Your task to perform on an android device: install app "Google Drive" Image 0: 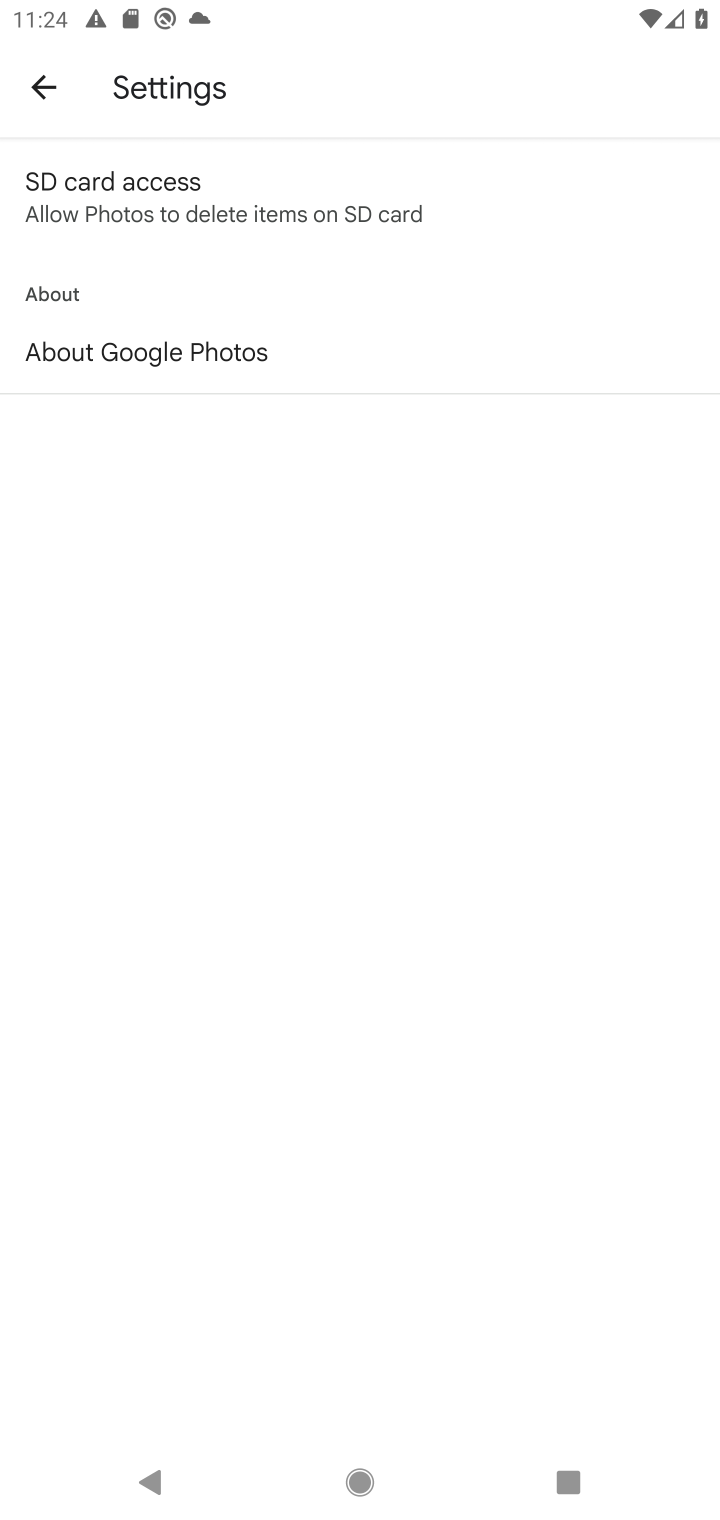
Step 0: press home button
Your task to perform on an android device: install app "Google Drive" Image 1: 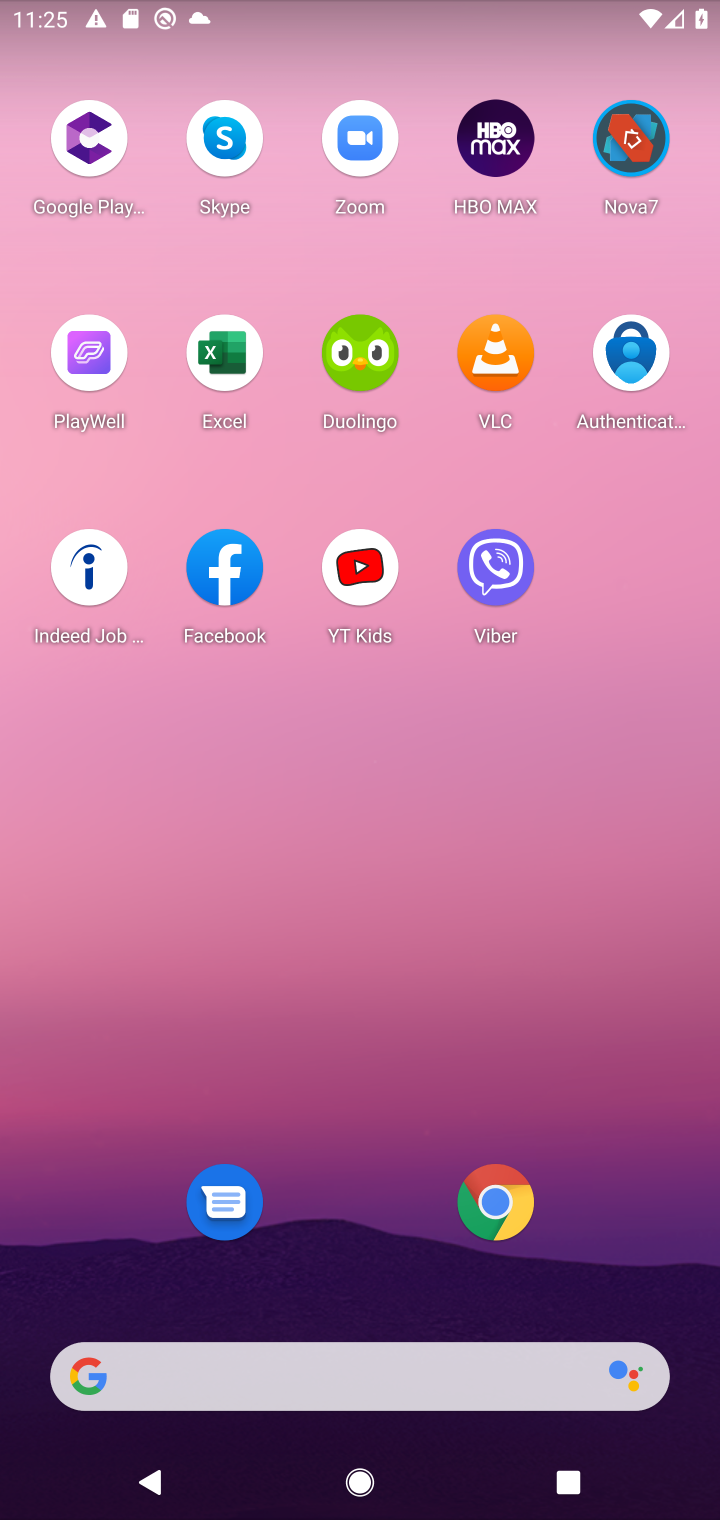
Step 1: click (233, 1375)
Your task to perform on an android device: install app "Google Drive" Image 2: 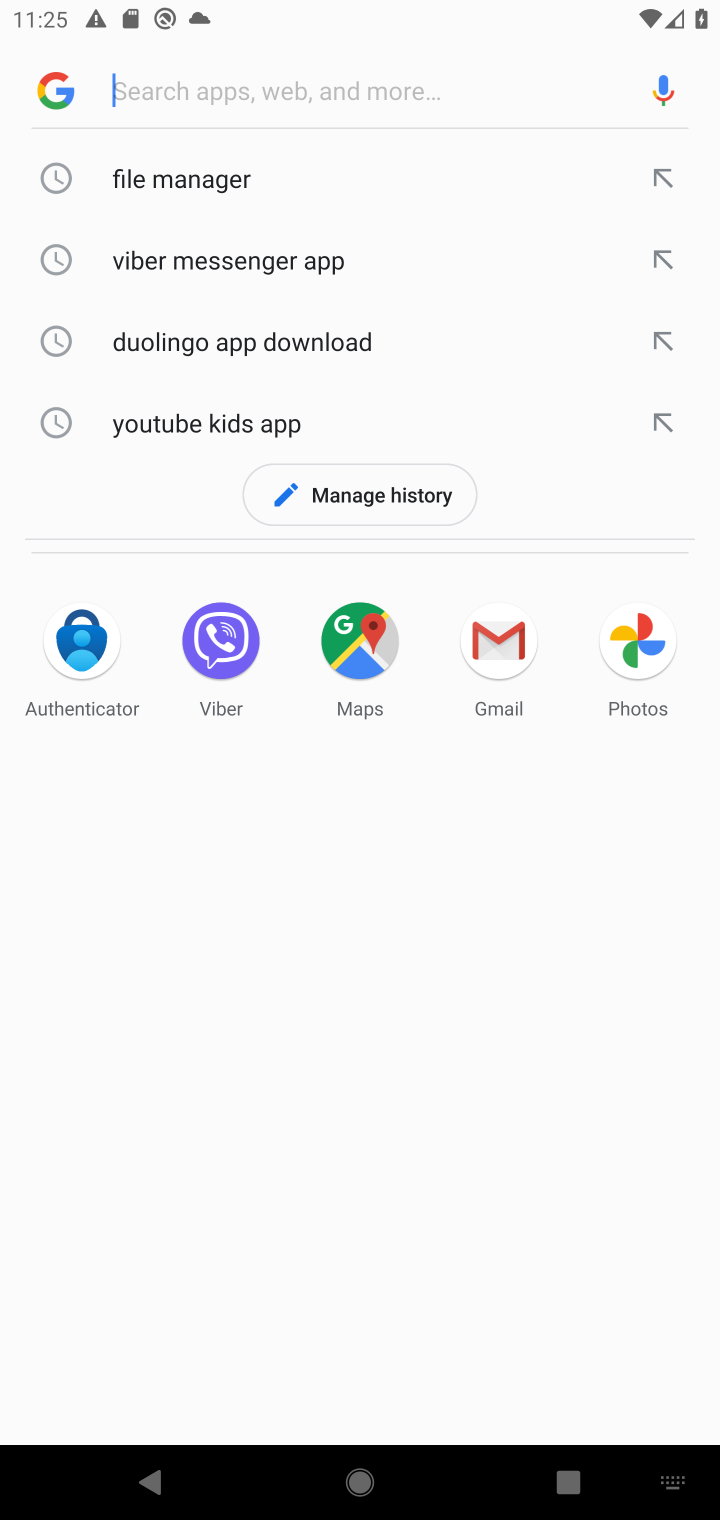
Step 2: type "google drive"
Your task to perform on an android device: install app "Google Drive" Image 3: 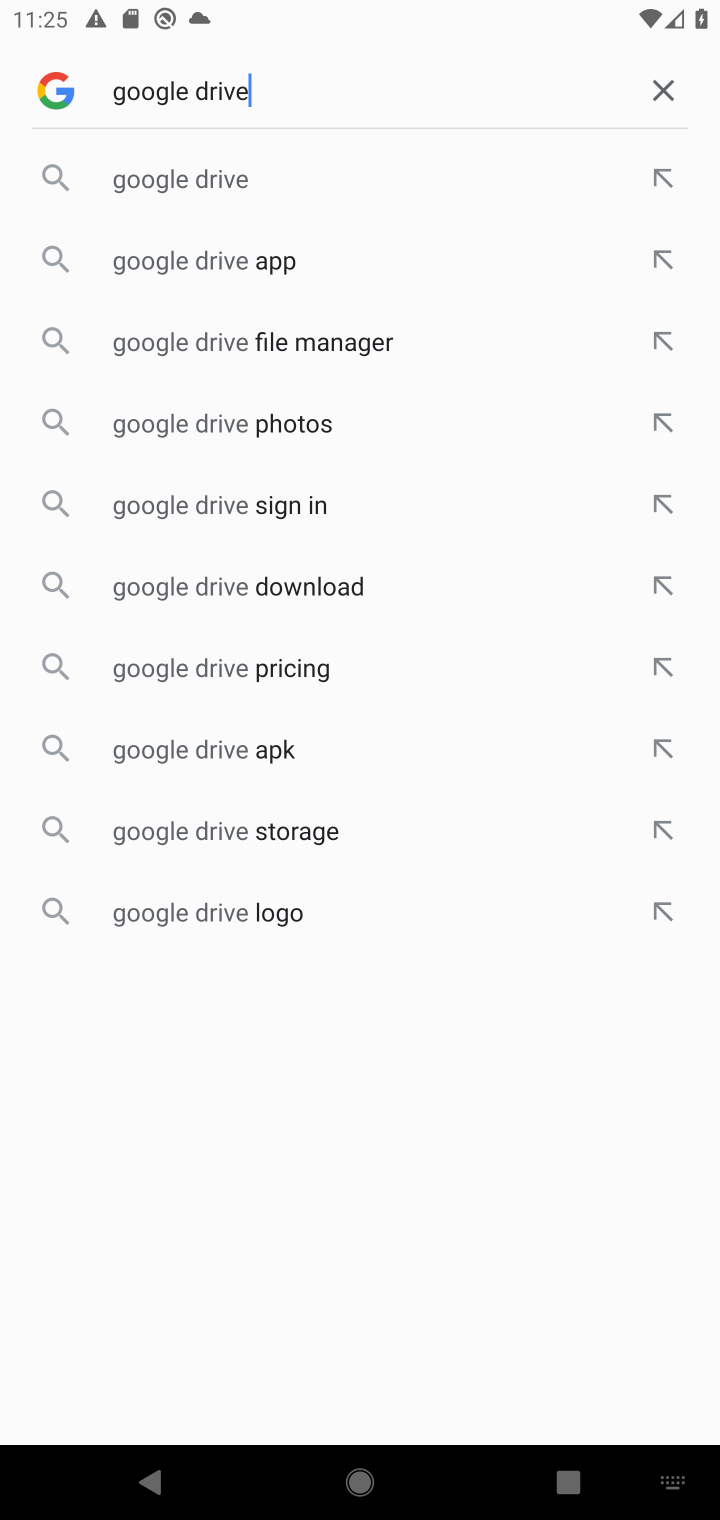
Step 3: click (295, 209)
Your task to perform on an android device: install app "Google Drive" Image 4: 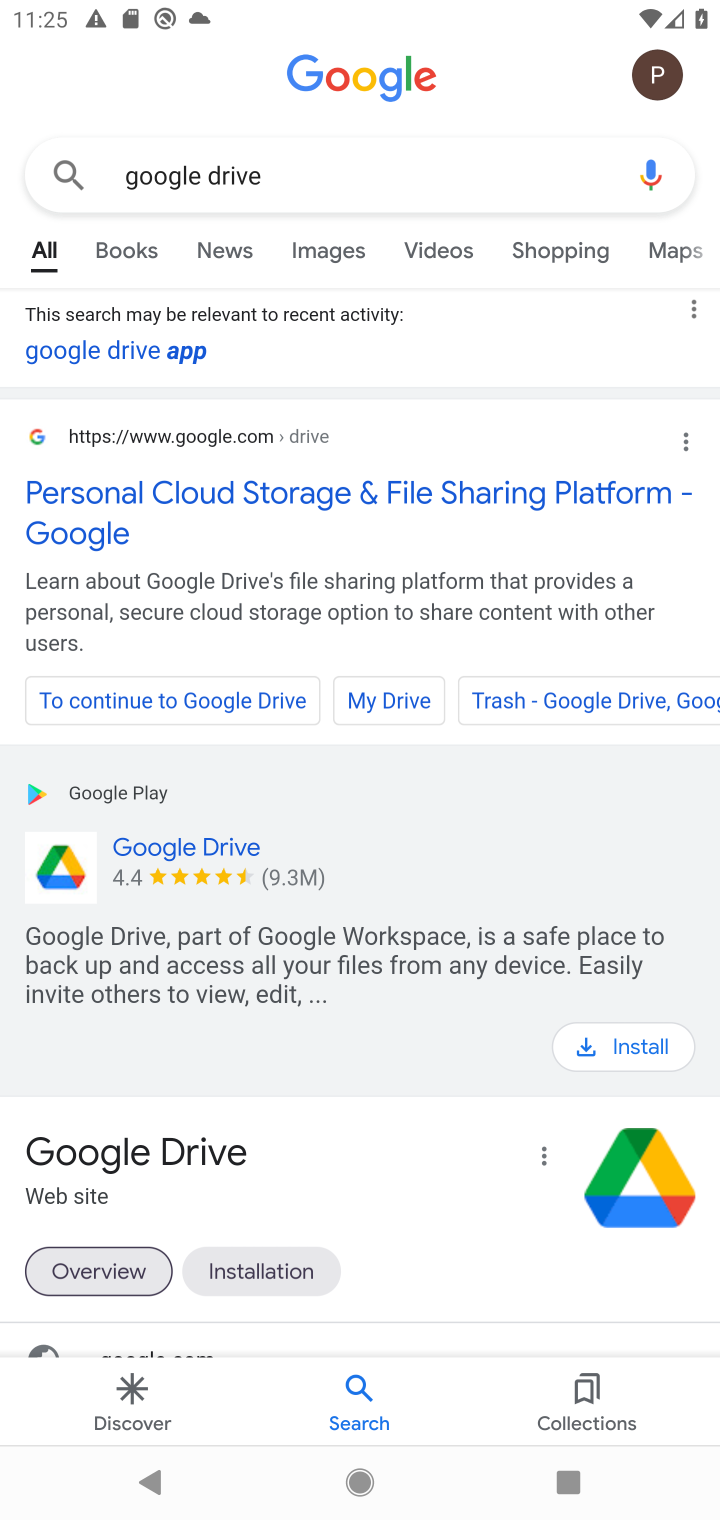
Step 4: click (631, 1051)
Your task to perform on an android device: install app "Google Drive" Image 5: 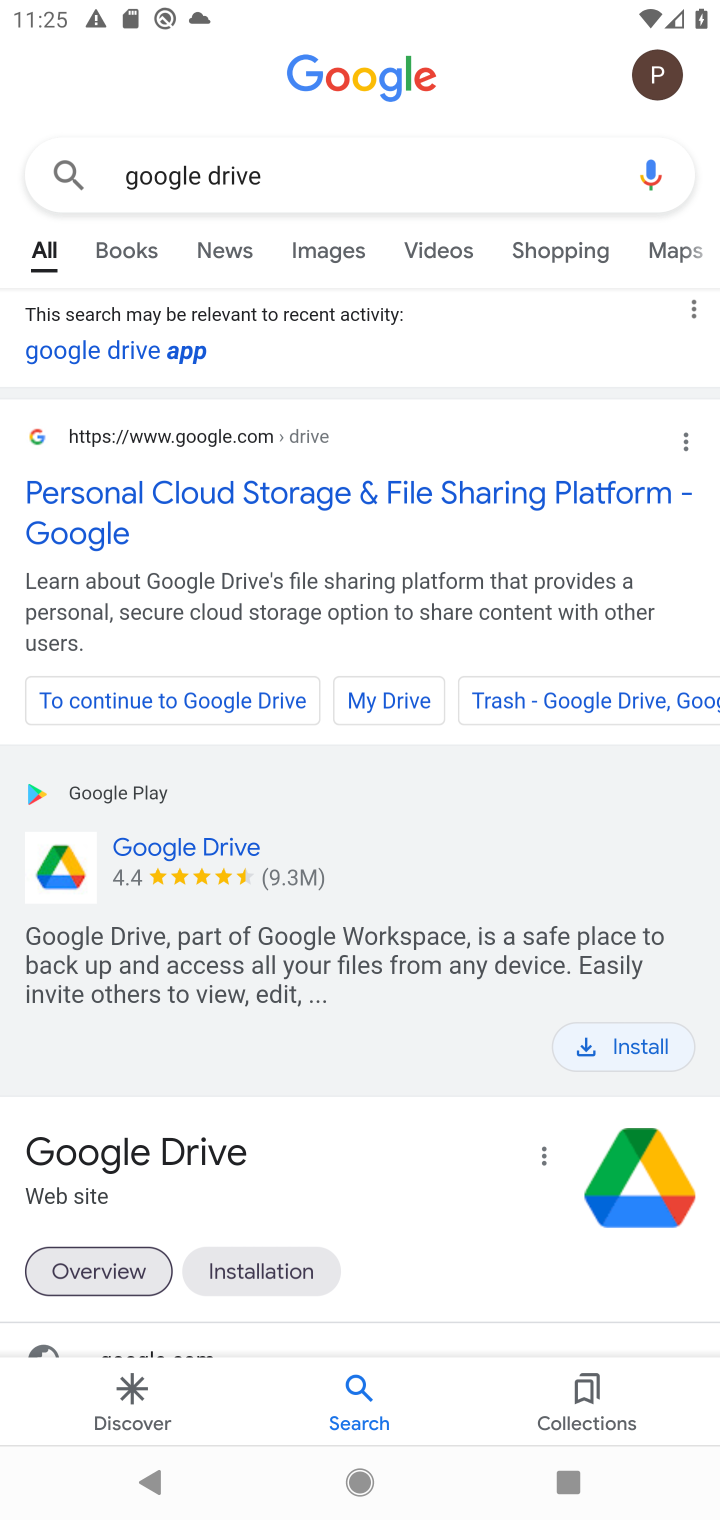
Step 5: task complete